Your task to perform on an android device: Go to battery settings Image 0: 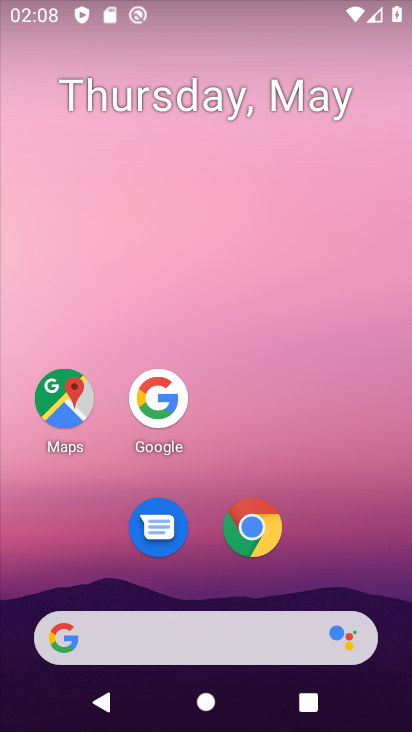
Step 0: click (232, 136)
Your task to perform on an android device: Go to battery settings Image 1: 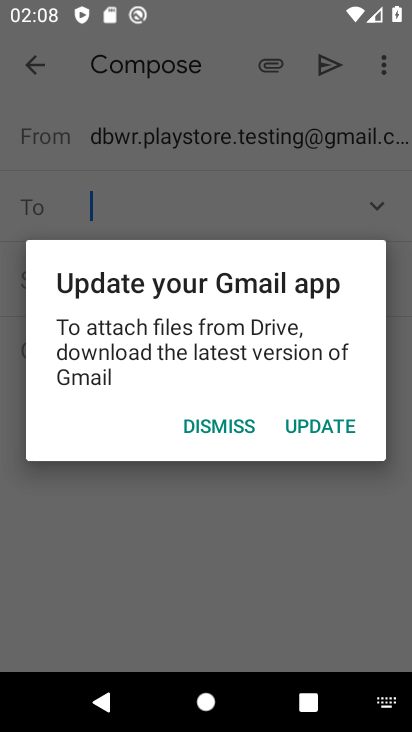
Step 1: press home button
Your task to perform on an android device: Go to battery settings Image 2: 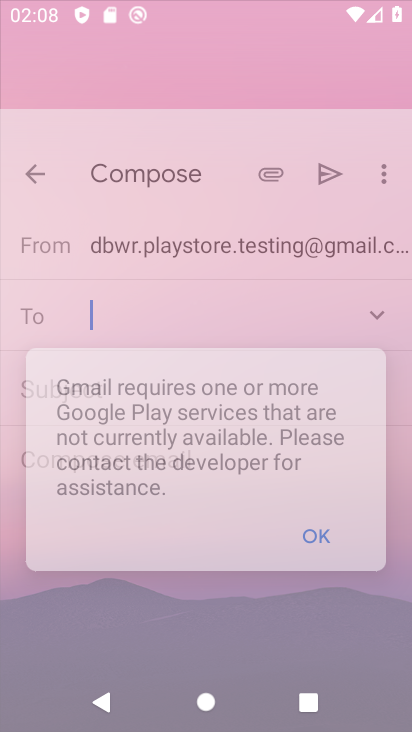
Step 2: drag from (217, 589) to (294, 4)
Your task to perform on an android device: Go to battery settings Image 3: 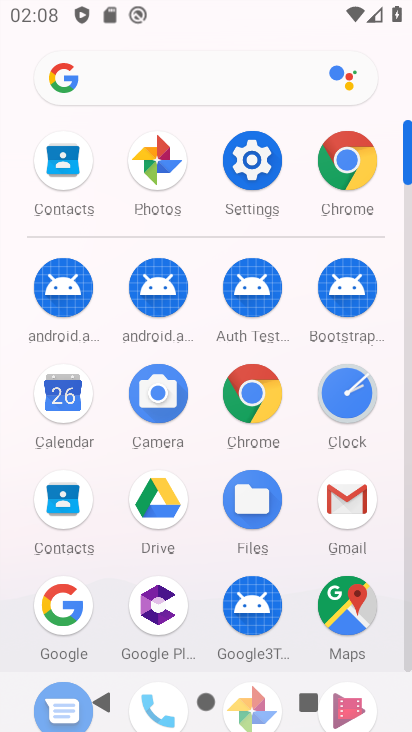
Step 3: click (250, 147)
Your task to perform on an android device: Go to battery settings Image 4: 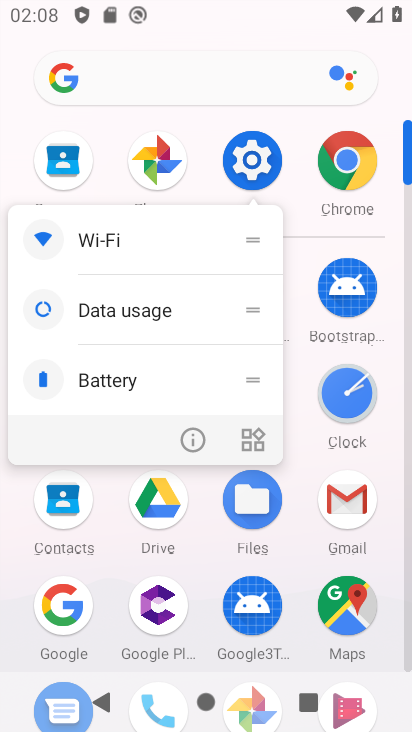
Step 4: click (115, 350)
Your task to perform on an android device: Go to battery settings Image 5: 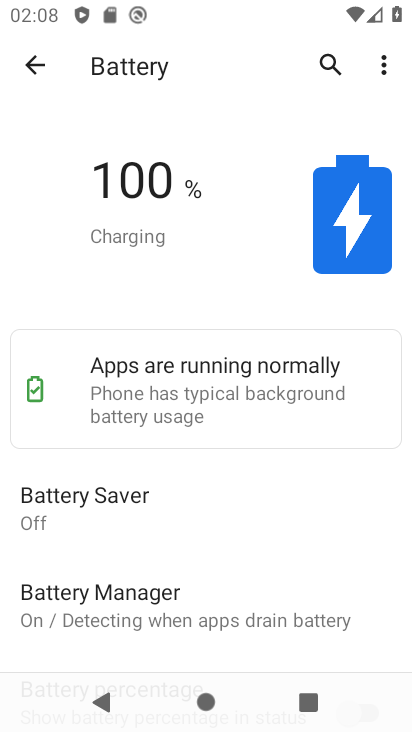
Step 5: task complete